Your task to perform on an android device: Toggle the flashlight Image 0: 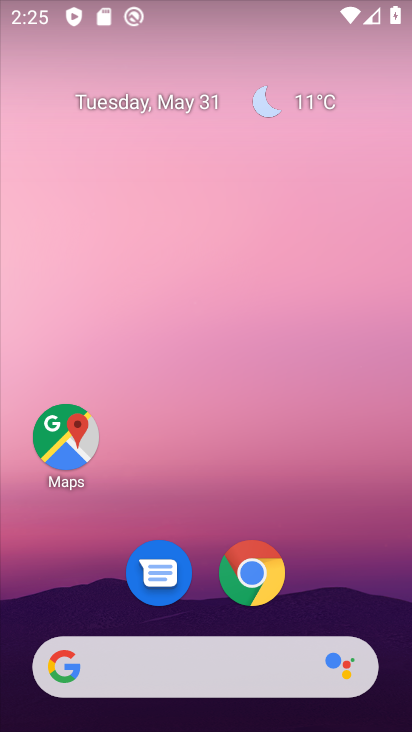
Step 0: drag from (263, 10) to (309, 490)
Your task to perform on an android device: Toggle the flashlight Image 1: 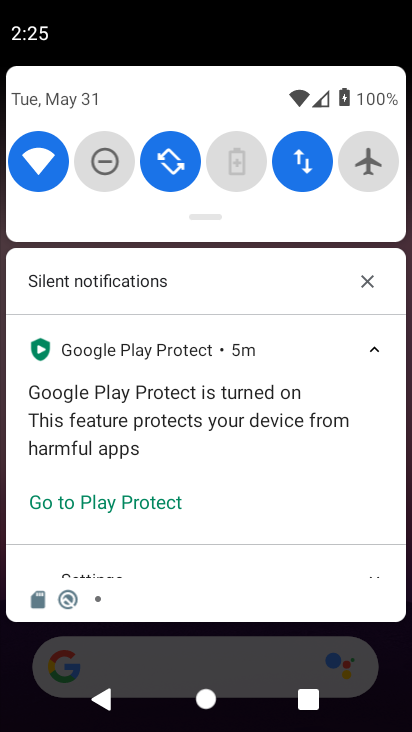
Step 1: drag from (256, 201) to (255, 533)
Your task to perform on an android device: Toggle the flashlight Image 2: 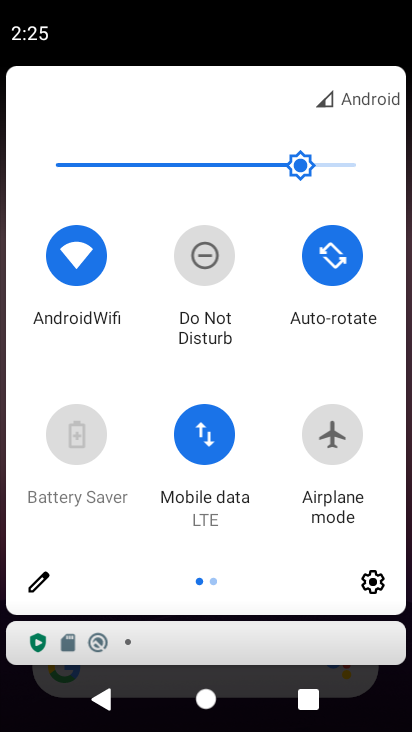
Step 2: click (38, 572)
Your task to perform on an android device: Toggle the flashlight Image 3: 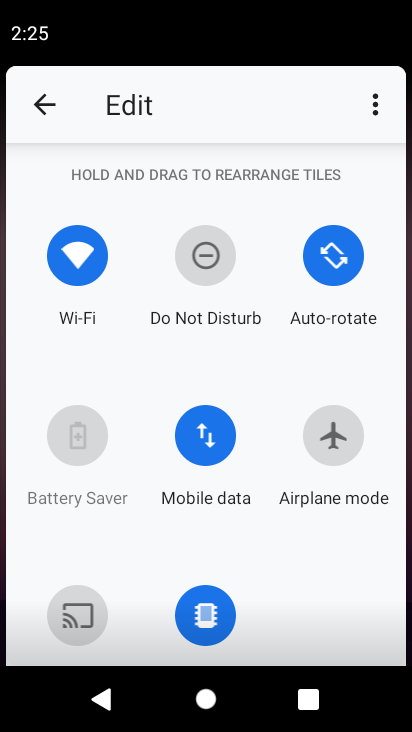
Step 3: task complete